Your task to perform on an android device: open device folders in google photos Image 0: 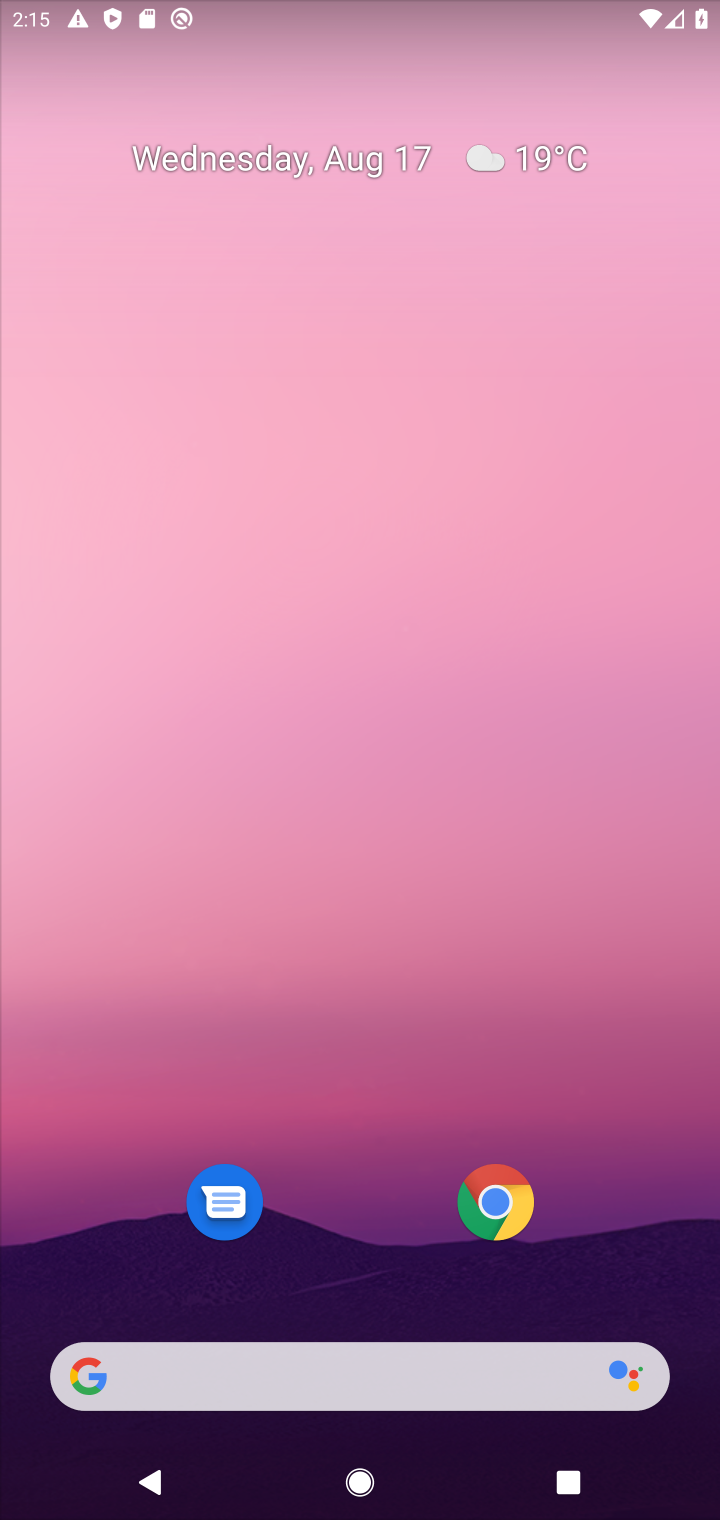
Step 0: drag from (318, 898) to (75, 683)
Your task to perform on an android device: open device folders in google photos Image 1: 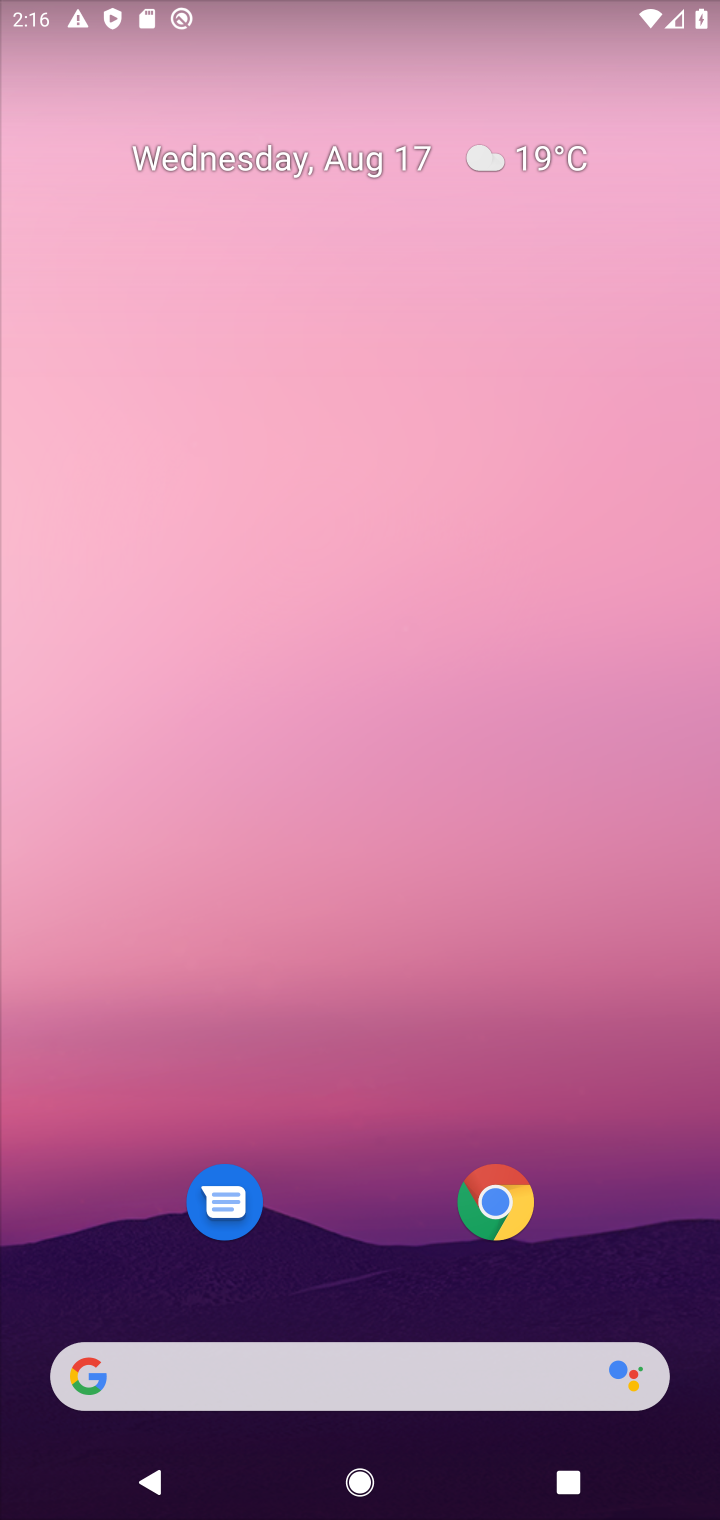
Step 1: drag from (364, 1206) to (316, 291)
Your task to perform on an android device: open device folders in google photos Image 2: 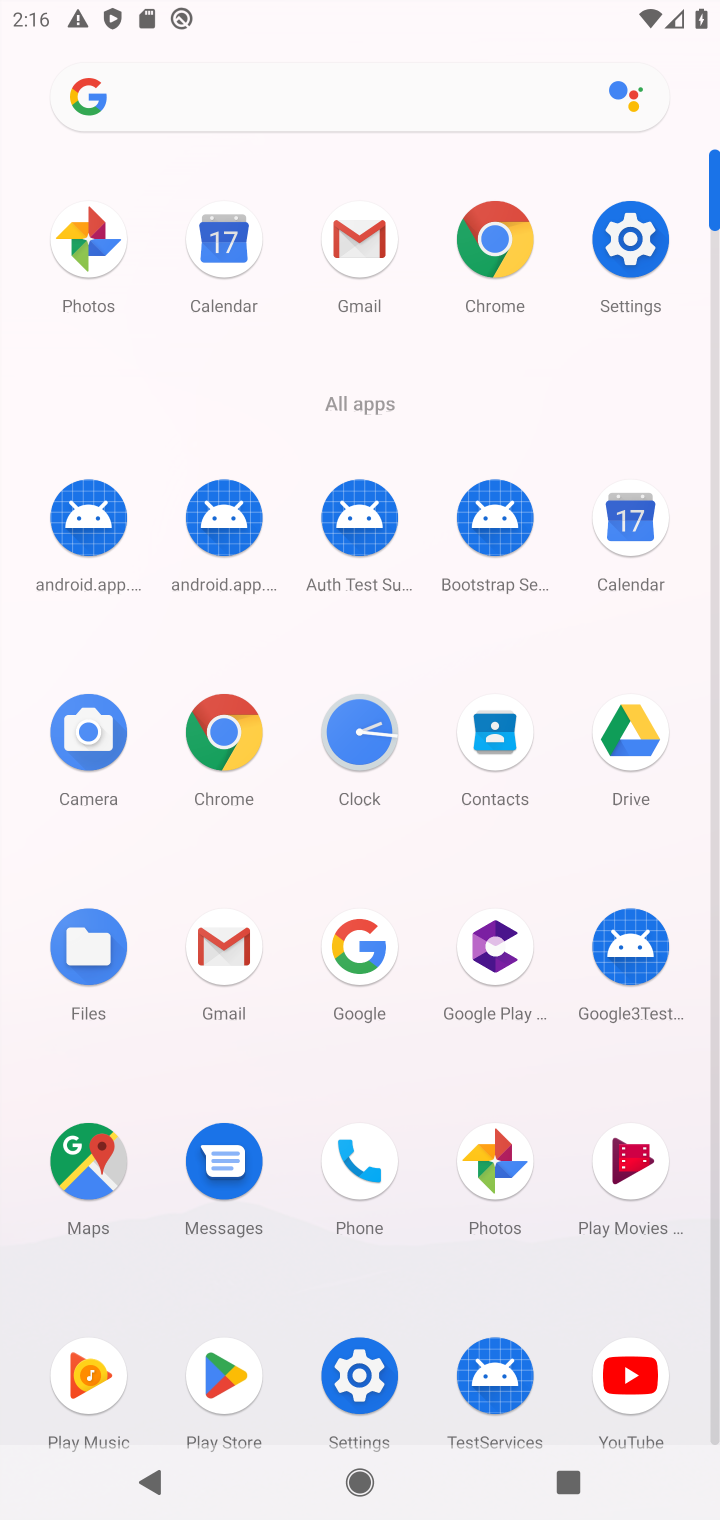
Step 2: click (485, 1174)
Your task to perform on an android device: open device folders in google photos Image 3: 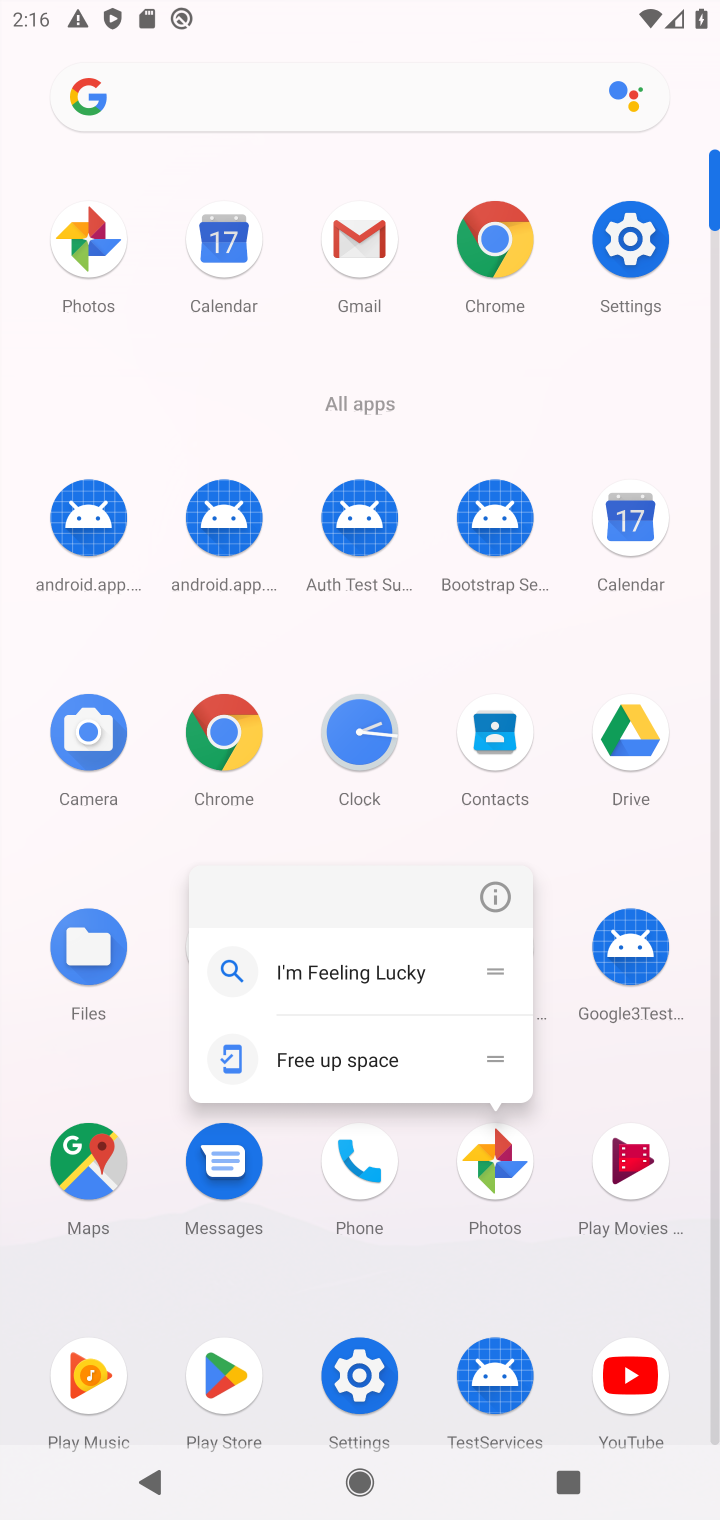
Step 3: click (483, 1201)
Your task to perform on an android device: open device folders in google photos Image 4: 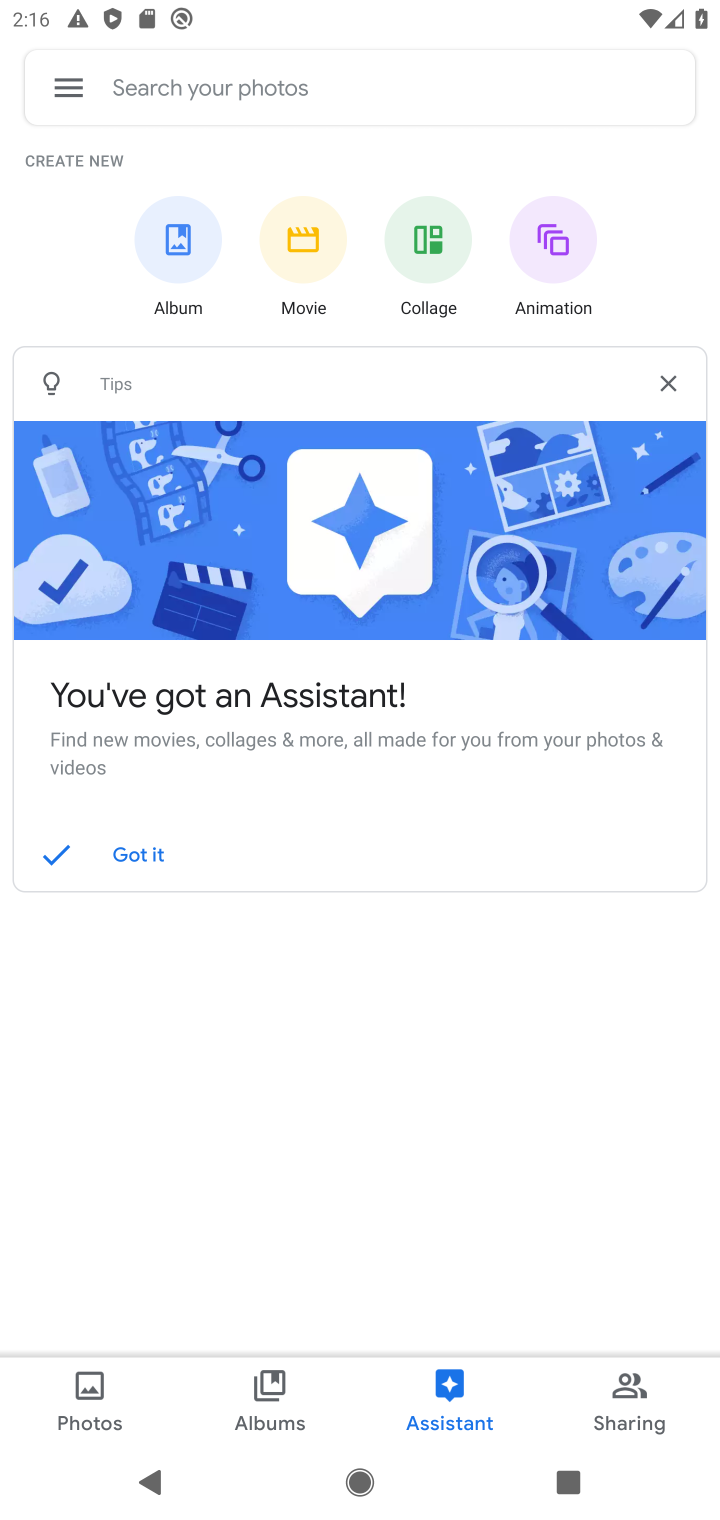
Step 4: click (65, 81)
Your task to perform on an android device: open device folders in google photos Image 5: 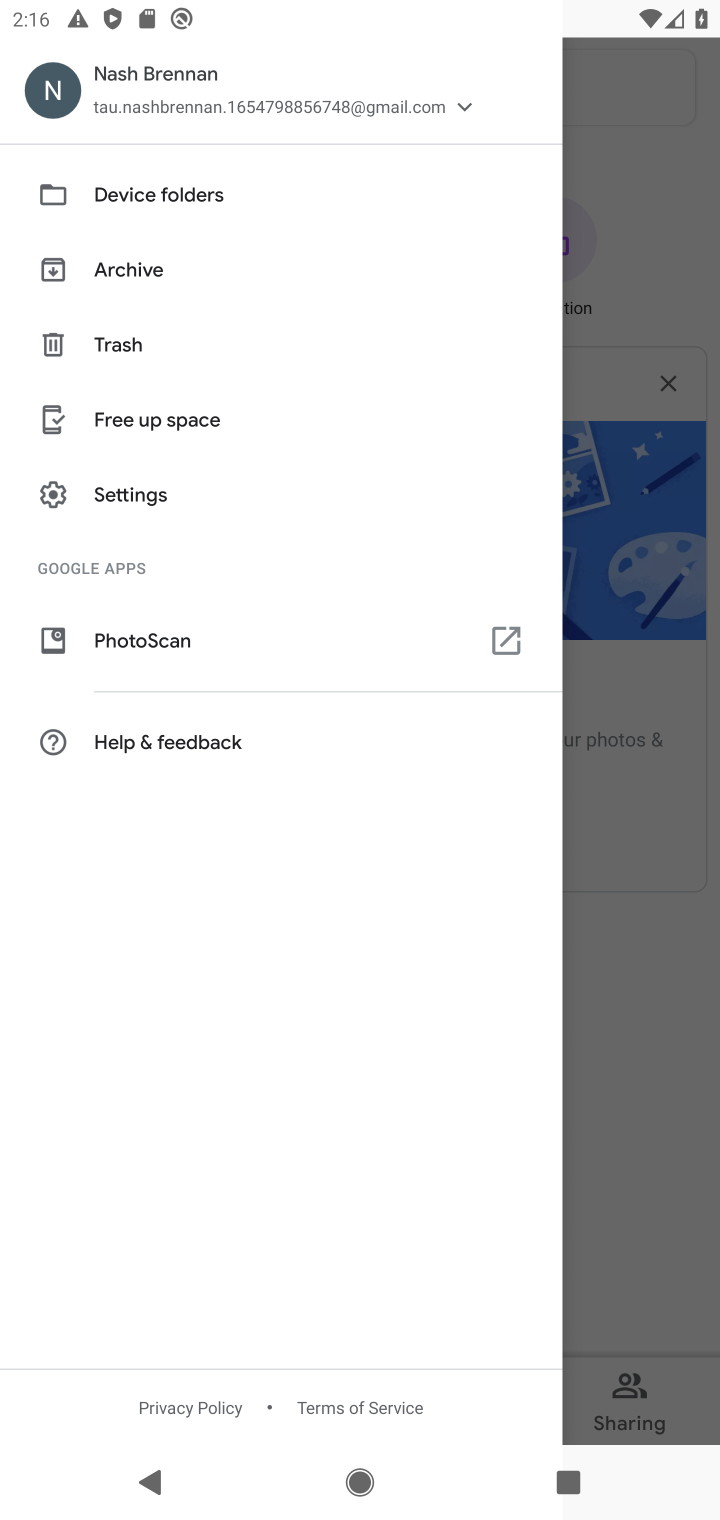
Step 5: click (152, 200)
Your task to perform on an android device: open device folders in google photos Image 6: 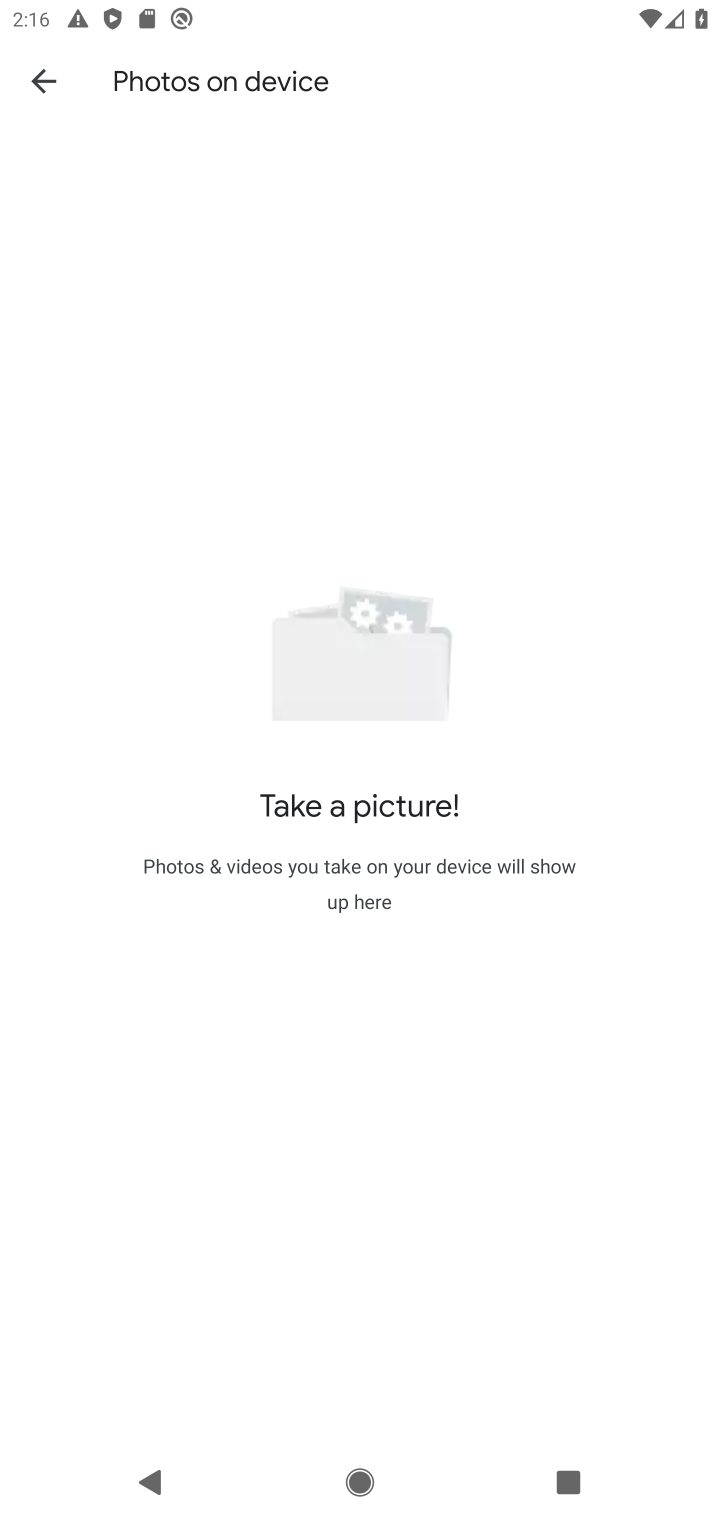
Step 6: task complete